Your task to perform on an android device: turn on the 12-hour format for clock Image 0: 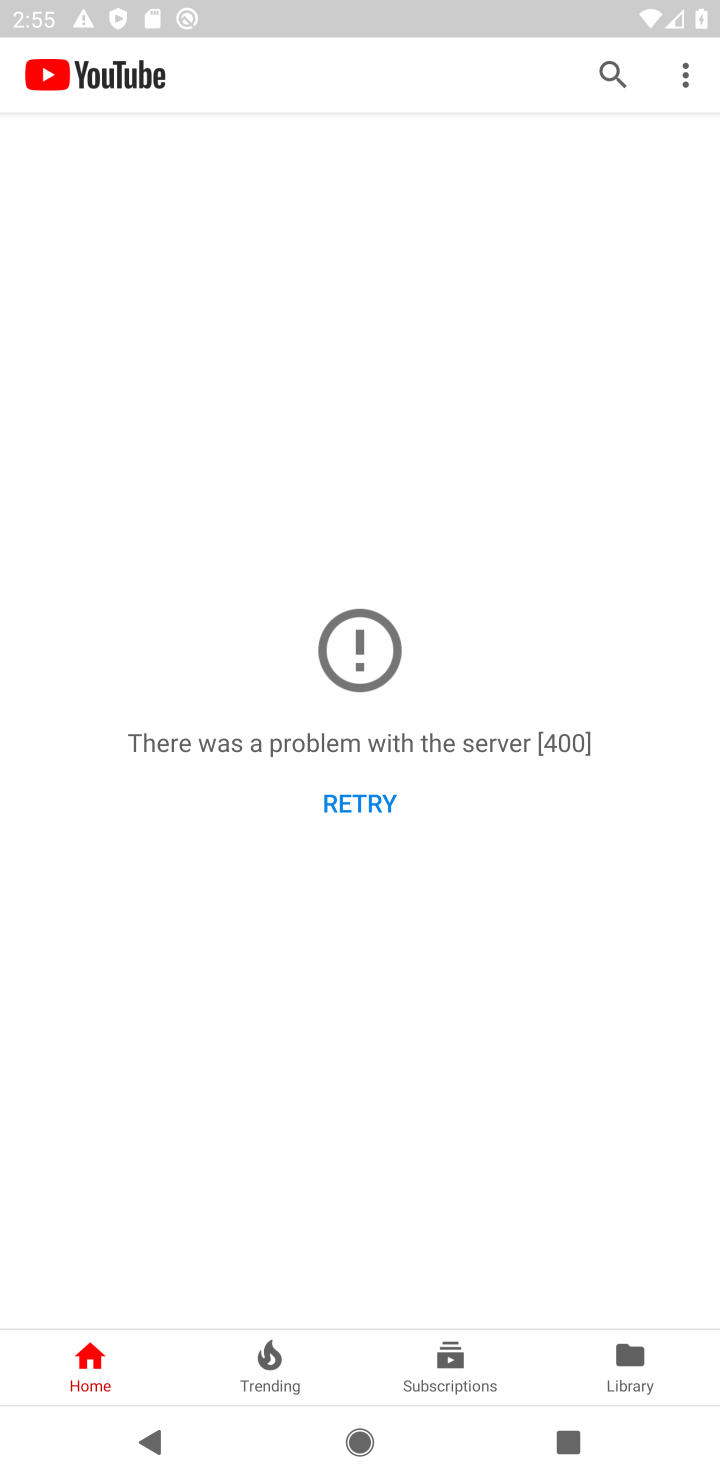
Step 0: press home button
Your task to perform on an android device: turn on the 12-hour format for clock Image 1: 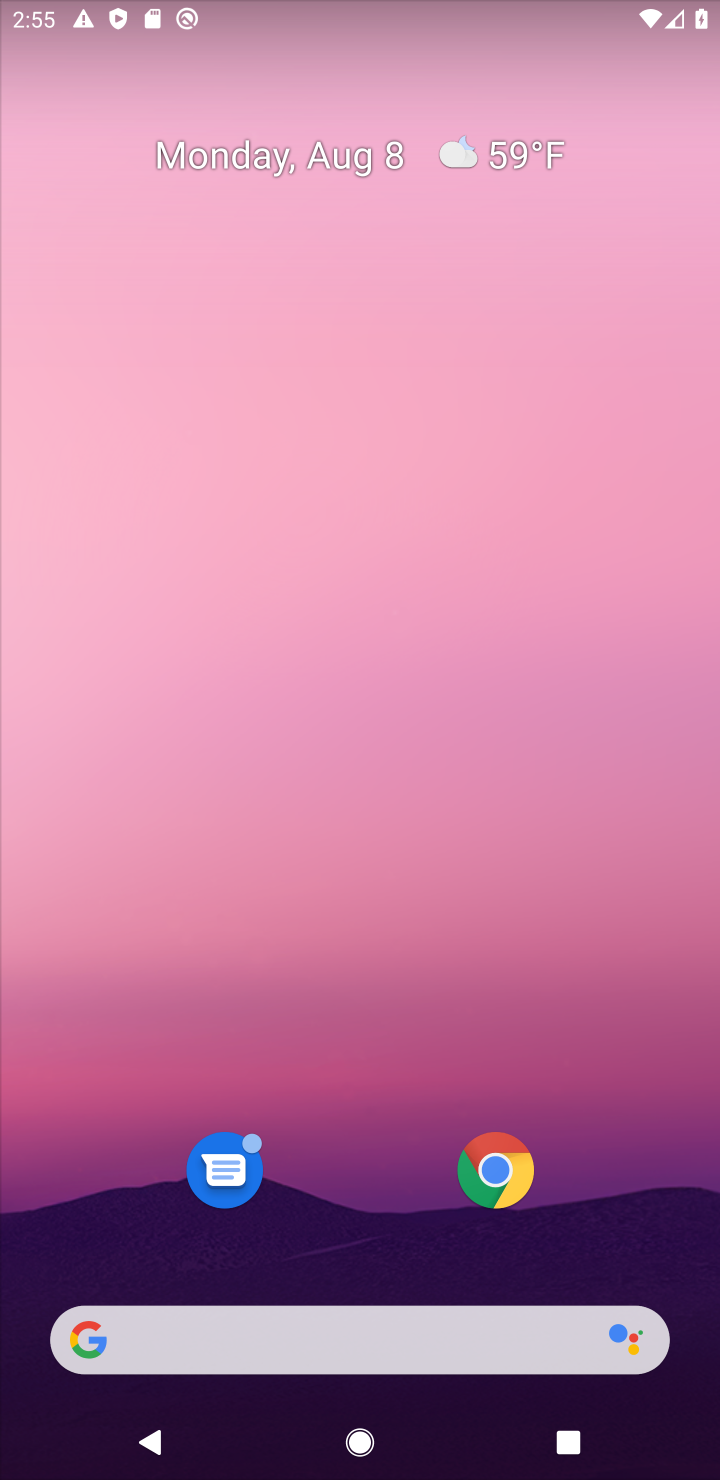
Step 1: drag from (407, 786) to (470, 7)
Your task to perform on an android device: turn on the 12-hour format for clock Image 2: 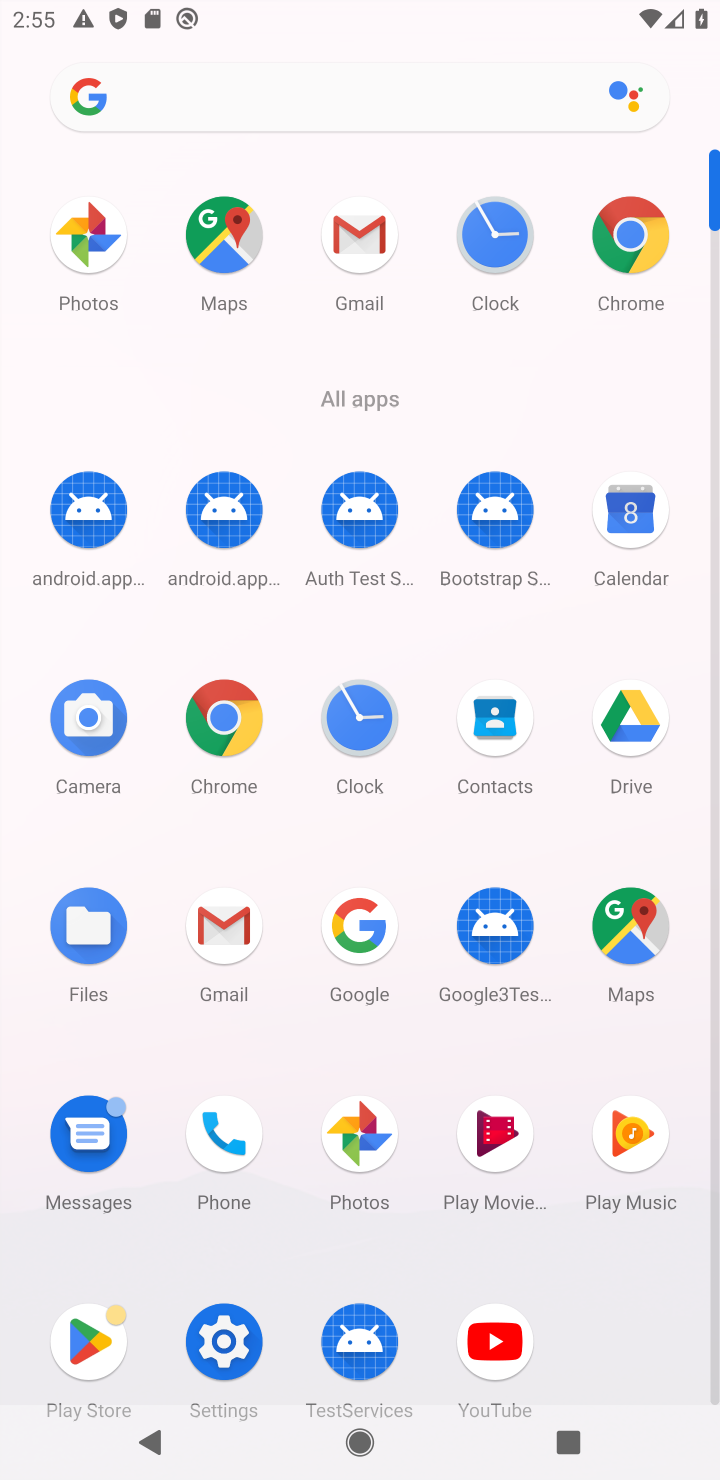
Step 2: drag from (370, 1166) to (233, 136)
Your task to perform on an android device: turn on the 12-hour format for clock Image 3: 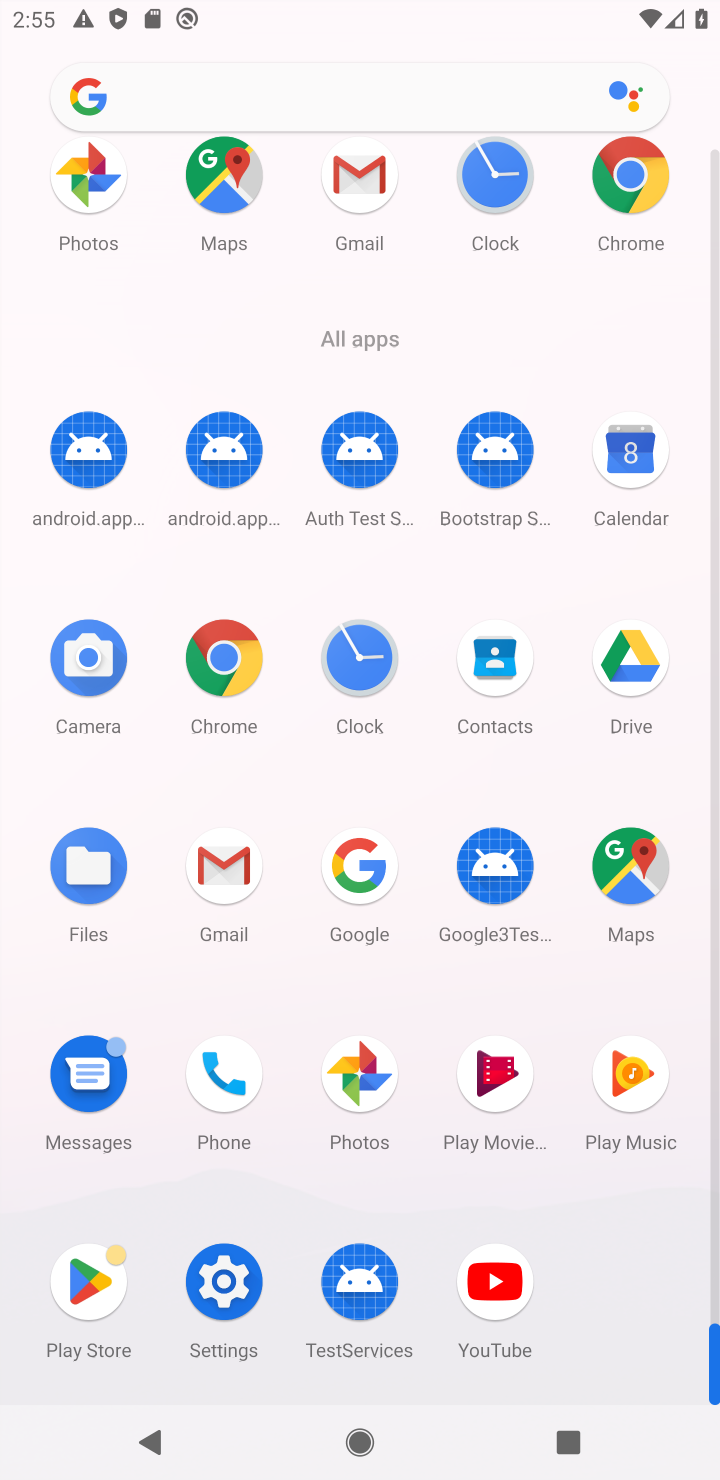
Step 3: click (337, 661)
Your task to perform on an android device: turn on the 12-hour format for clock Image 4: 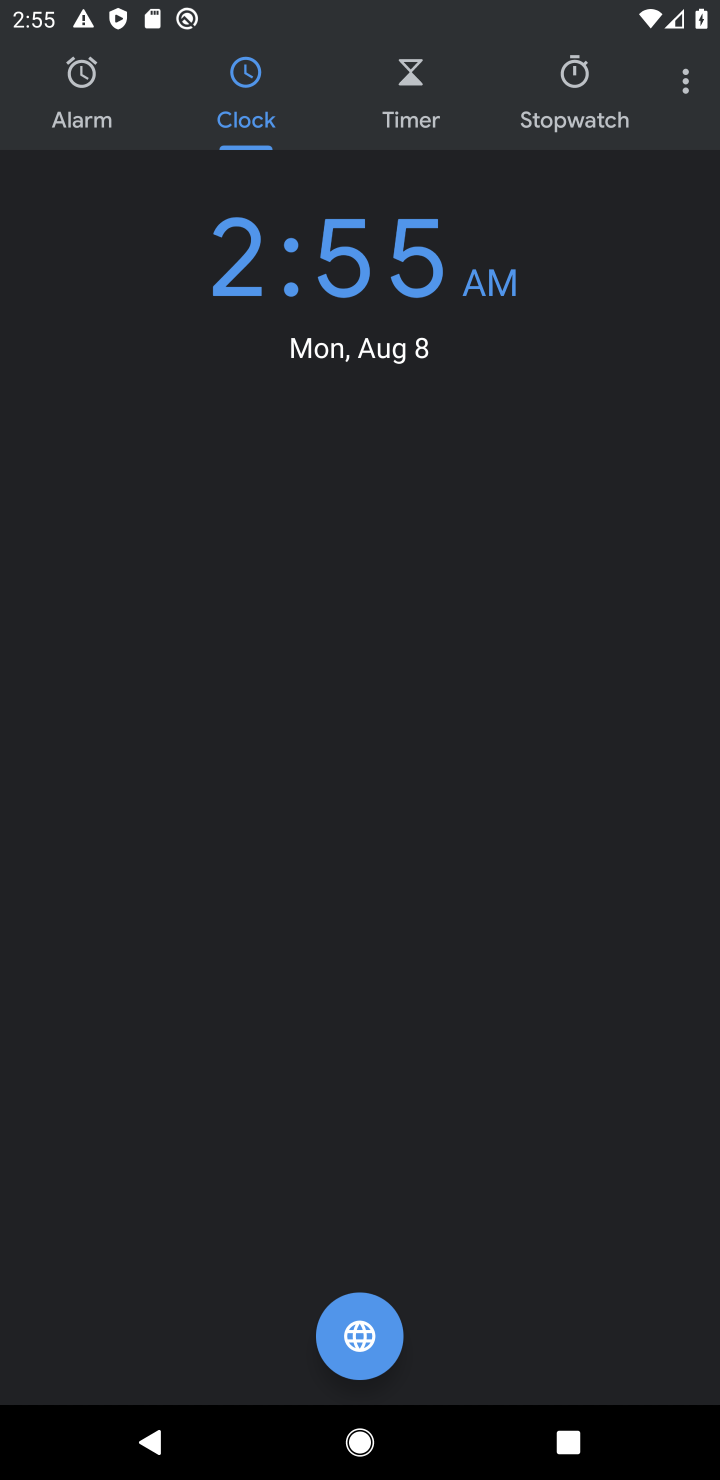
Step 4: click (682, 109)
Your task to perform on an android device: turn on the 12-hour format for clock Image 5: 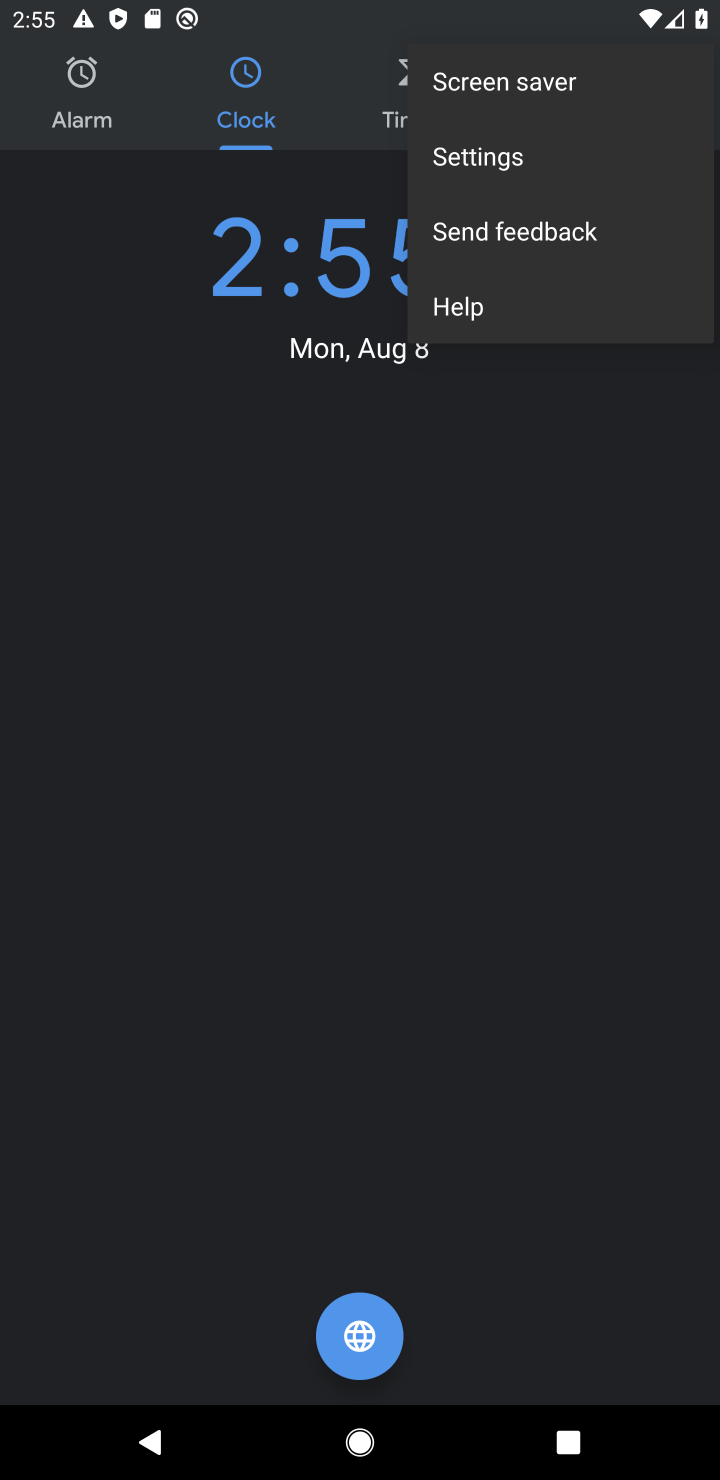
Step 5: click (525, 154)
Your task to perform on an android device: turn on the 12-hour format for clock Image 6: 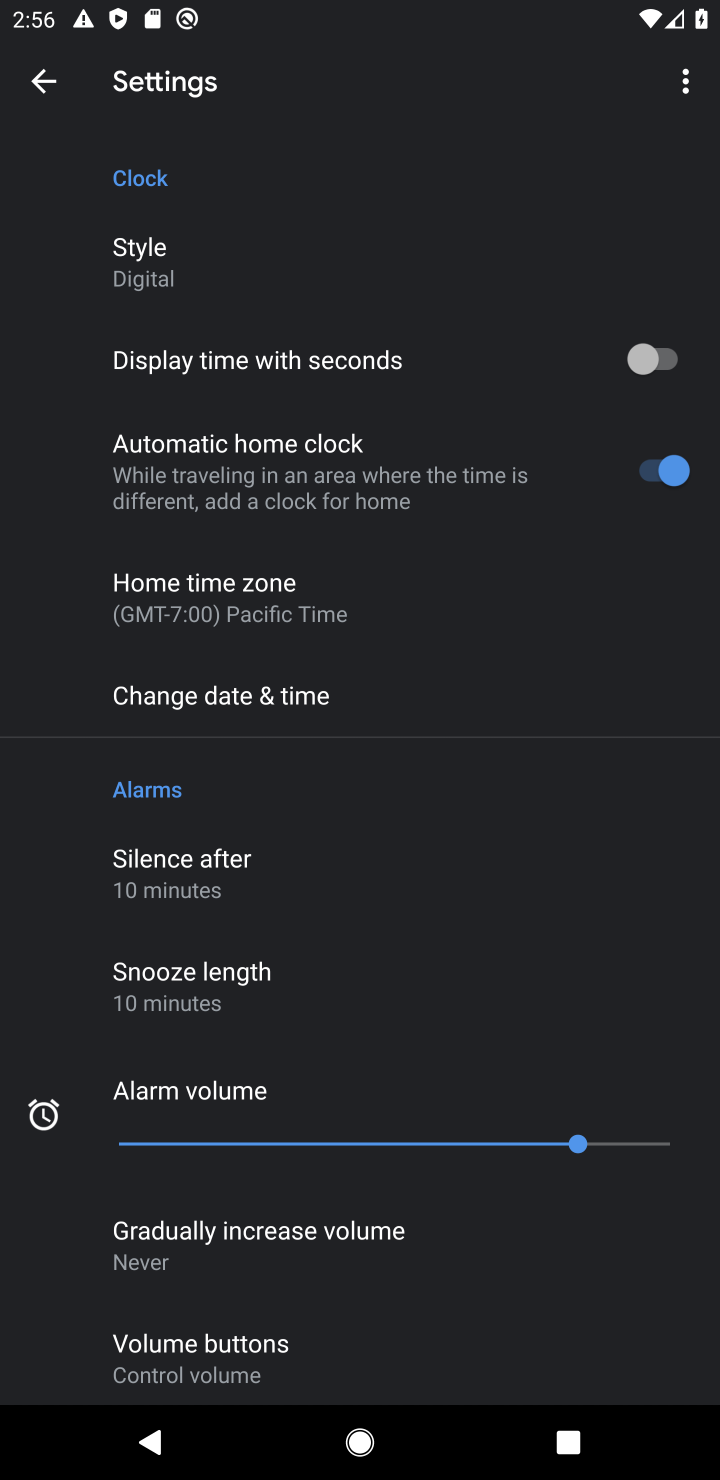
Step 6: click (213, 662)
Your task to perform on an android device: turn on the 12-hour format for clock Image 7: 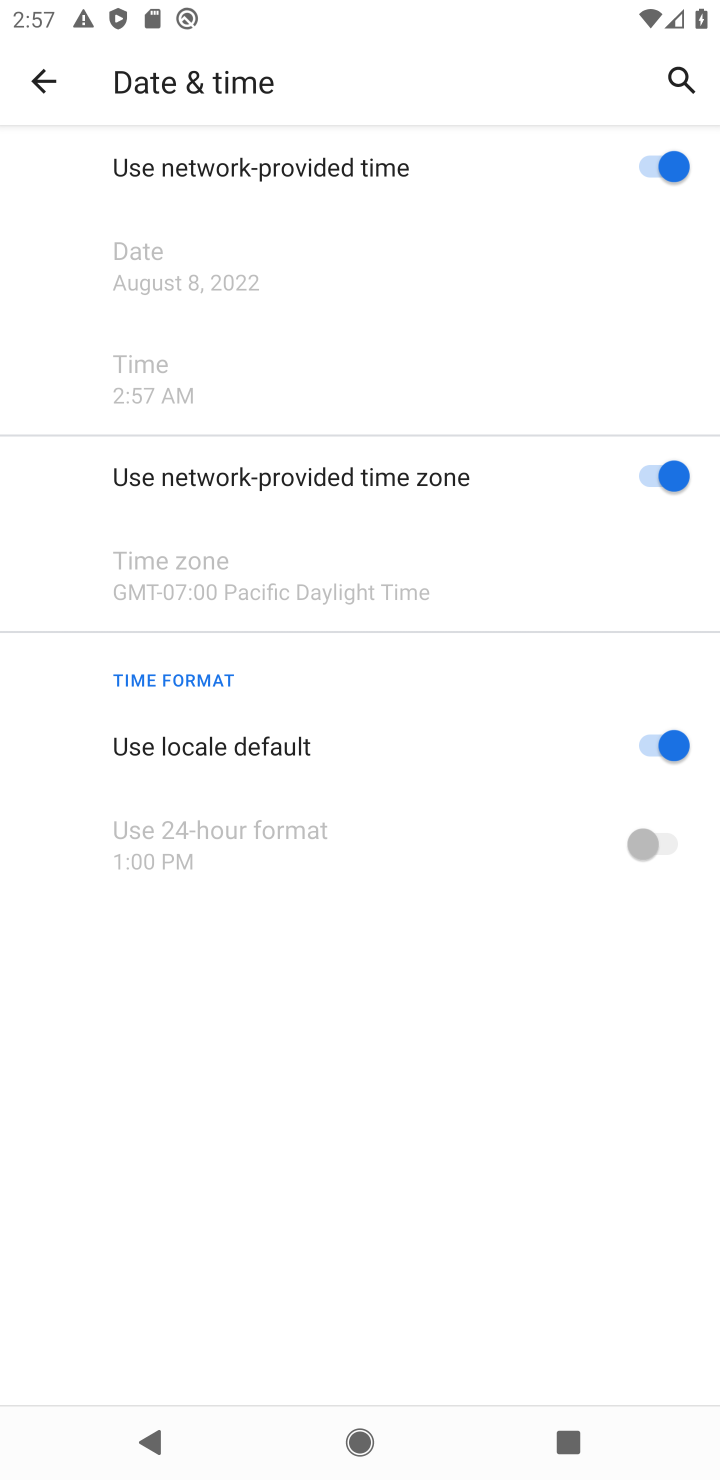
Step 7: task complete